Your task to perform on an android device: View the shopping cart on target. Search for "asus zenbook" on target, select the first entry, and add it to the cart. Image 0: 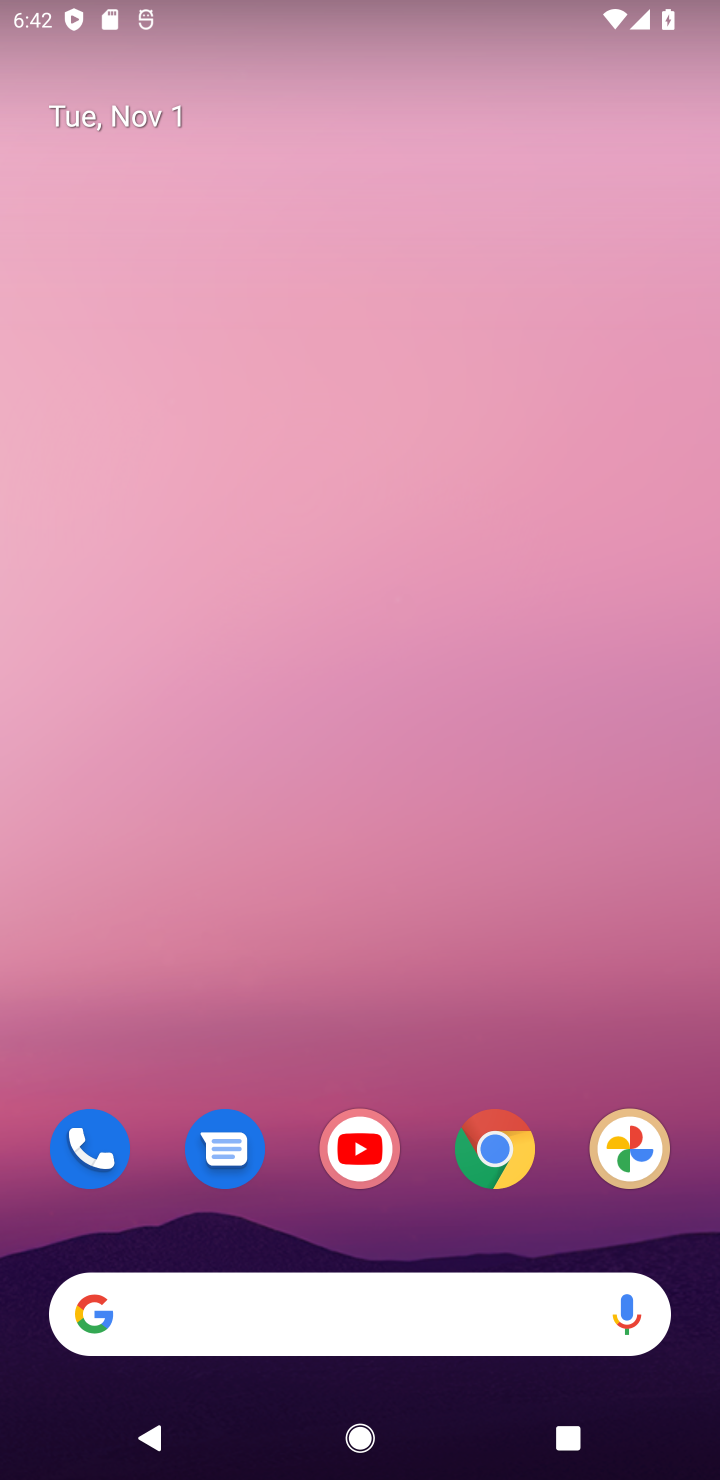
Step 0: drag from (406, 1222) to (588, 315)
Your task to perform on an android device: View the shopping cart on target. Search for "asus zenbook" on target, select the first entry, and add it to the cart. Image 1: 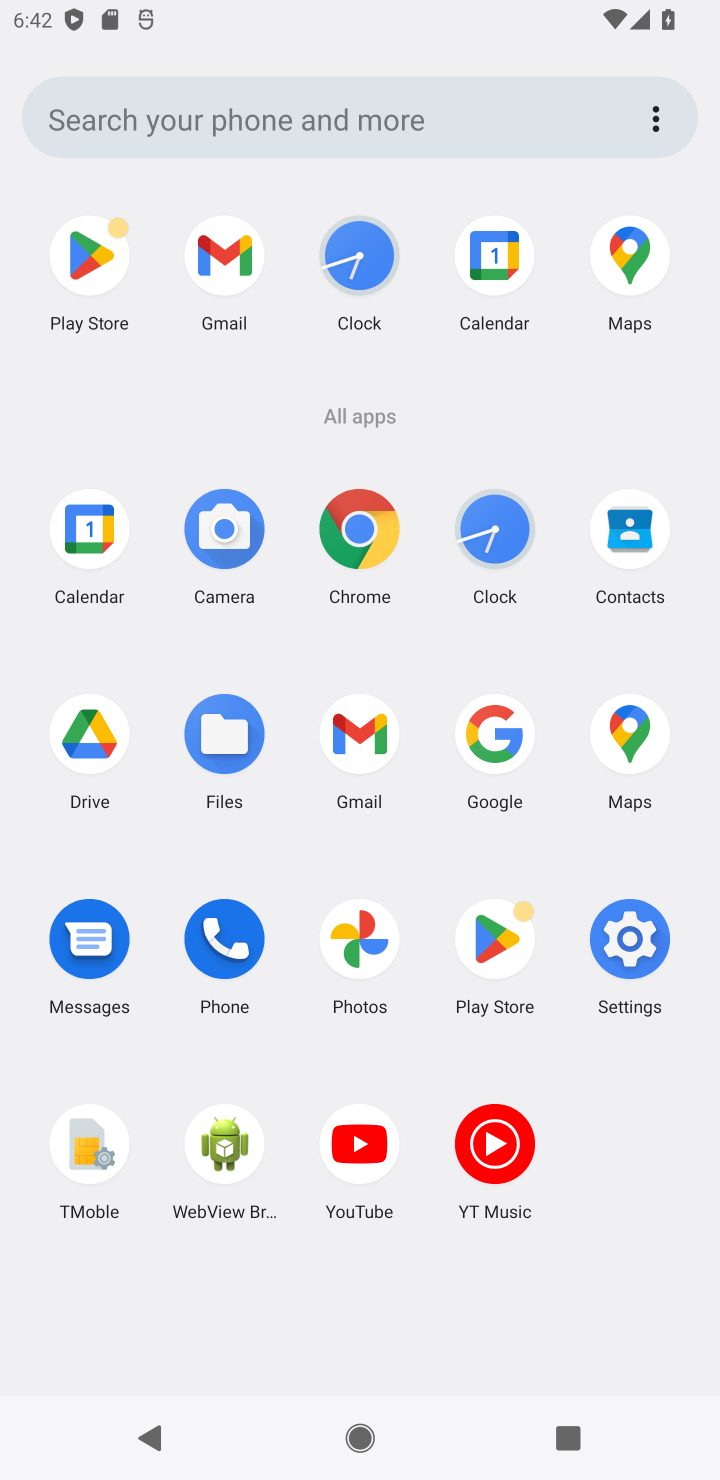
Step 1: click (360, 536)
Your task to perform on an android device: View the shopping cart on target. Search for "asus zenbook" on target, select the first entry, and add it to the cart. Image 2: 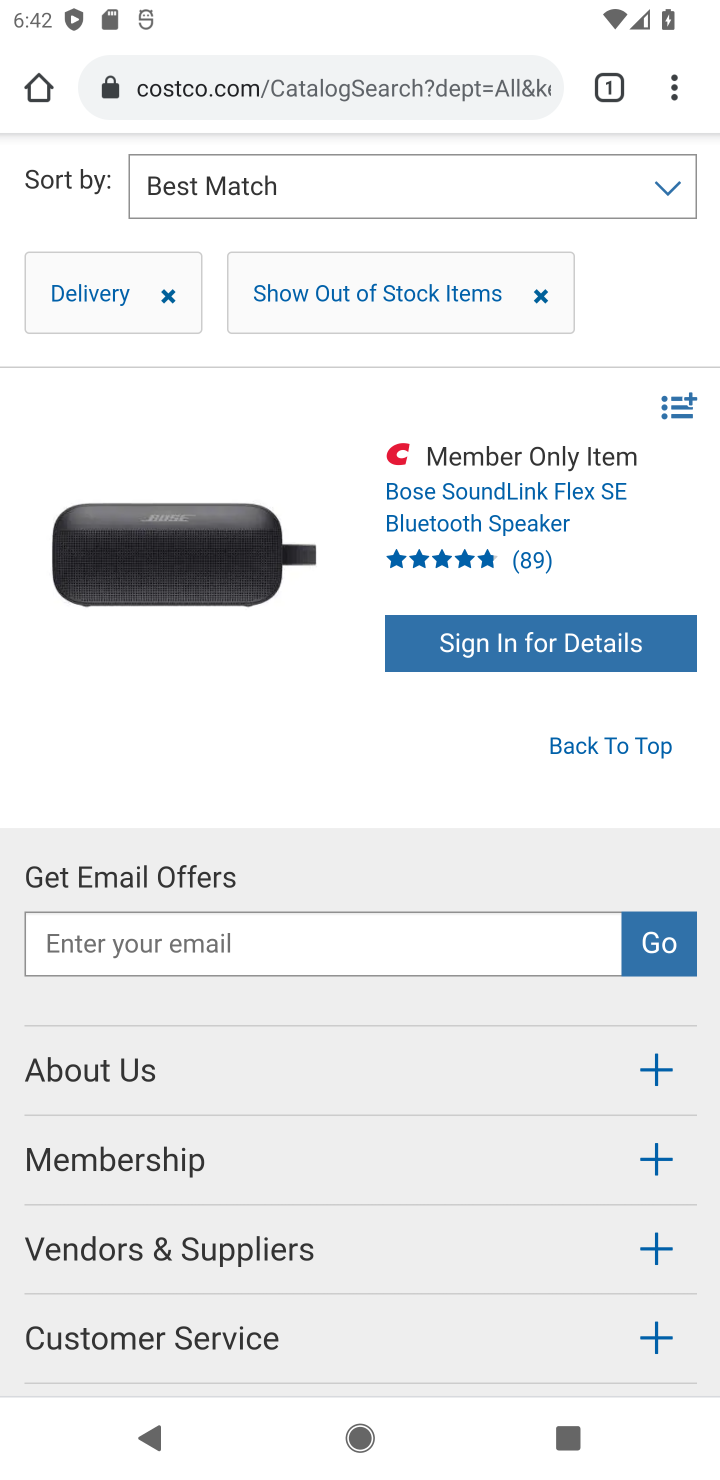
Step 2: click (350, 528)
Your task to perform on an android device: View the shopping cart on target. Search for "asus zenbook" on target, select the first entry, and add it to the cart. Image 3: 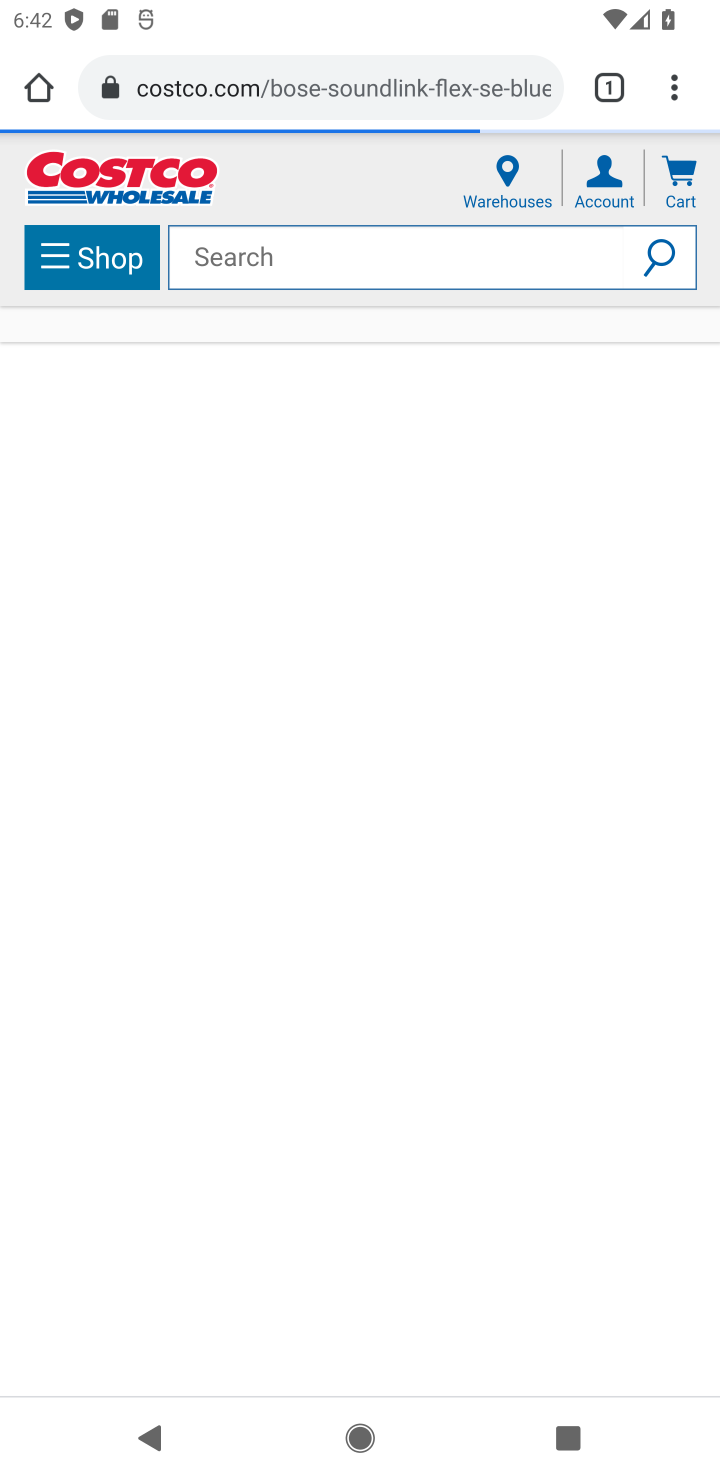
Step 3: click (396, 98)
Your task to perform on an android device: View the shopping cart on target. Search for "asus zenbook" on target, select the first entry, and add it to the cart. Image 4: 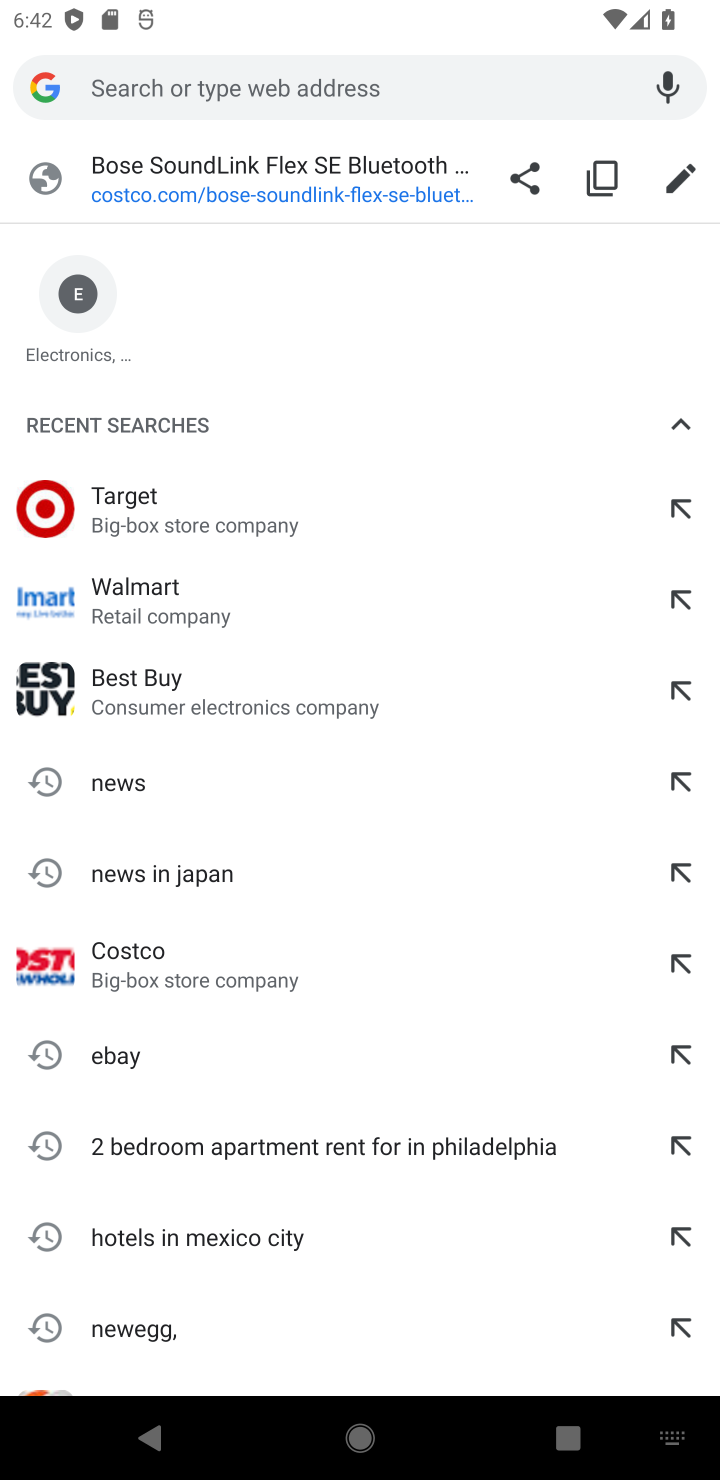
Step 4: type "target.com"
Your task to perform on an android device: View the shopping cart on target. Search for "asus zenbook" on target, select the first entry, and add it to the cart. Image 5: 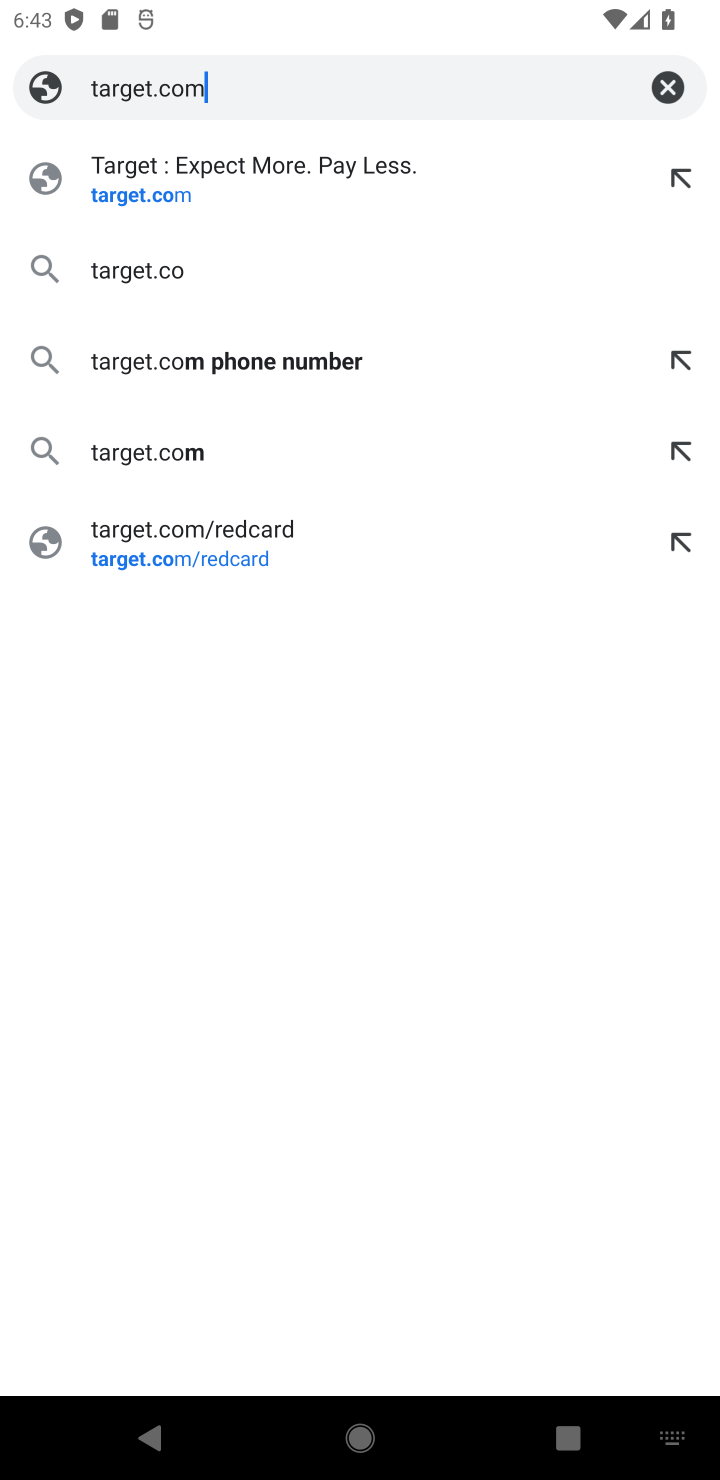
Step 5: press enter
Your task to perform on an android device: View the shopping cart on target. Search for "asus zenbook" on target, select the first entry, and add it to the cart. Image 6: 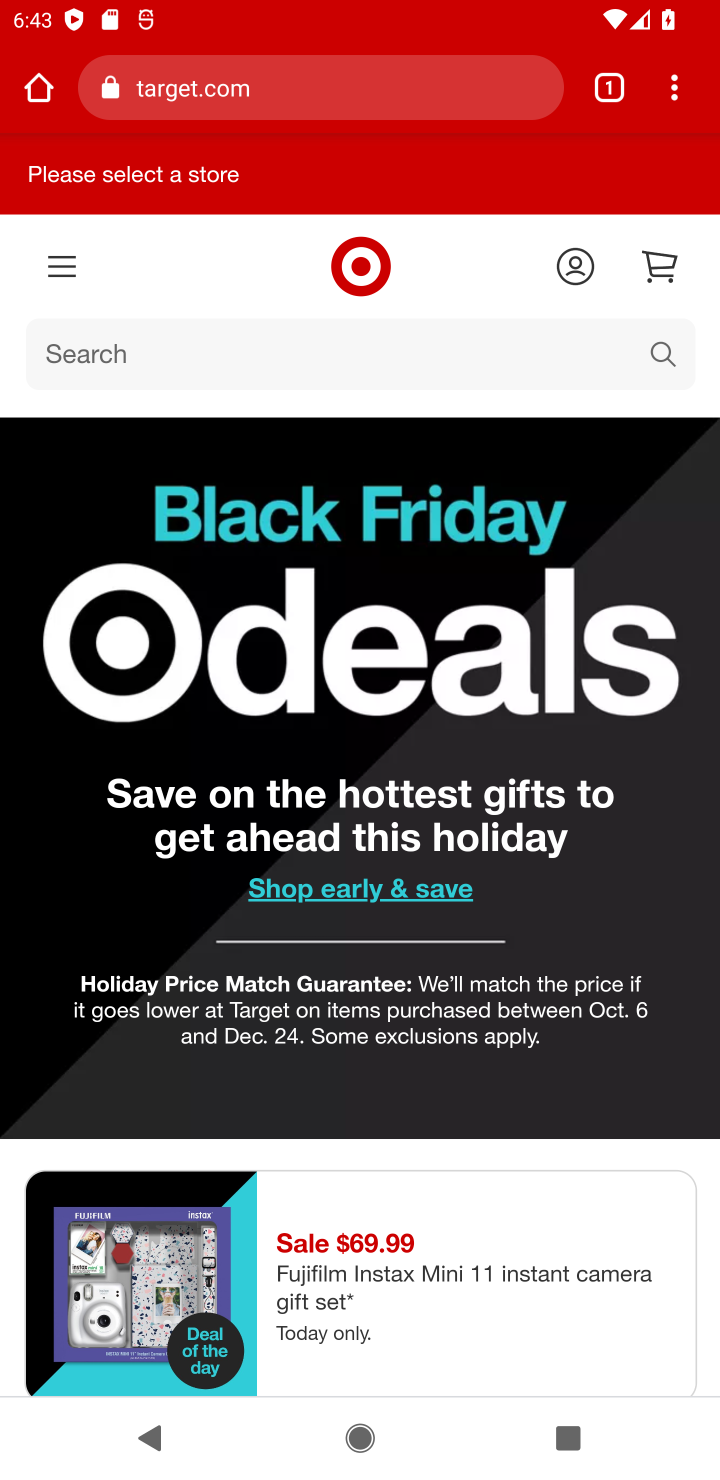
Step 6: click (656, 269)
Your task to perform on an android device: View the shopping cart on target. Search for "asus zenbook" on target, select the first entry, and add it to the cart. Image 7: 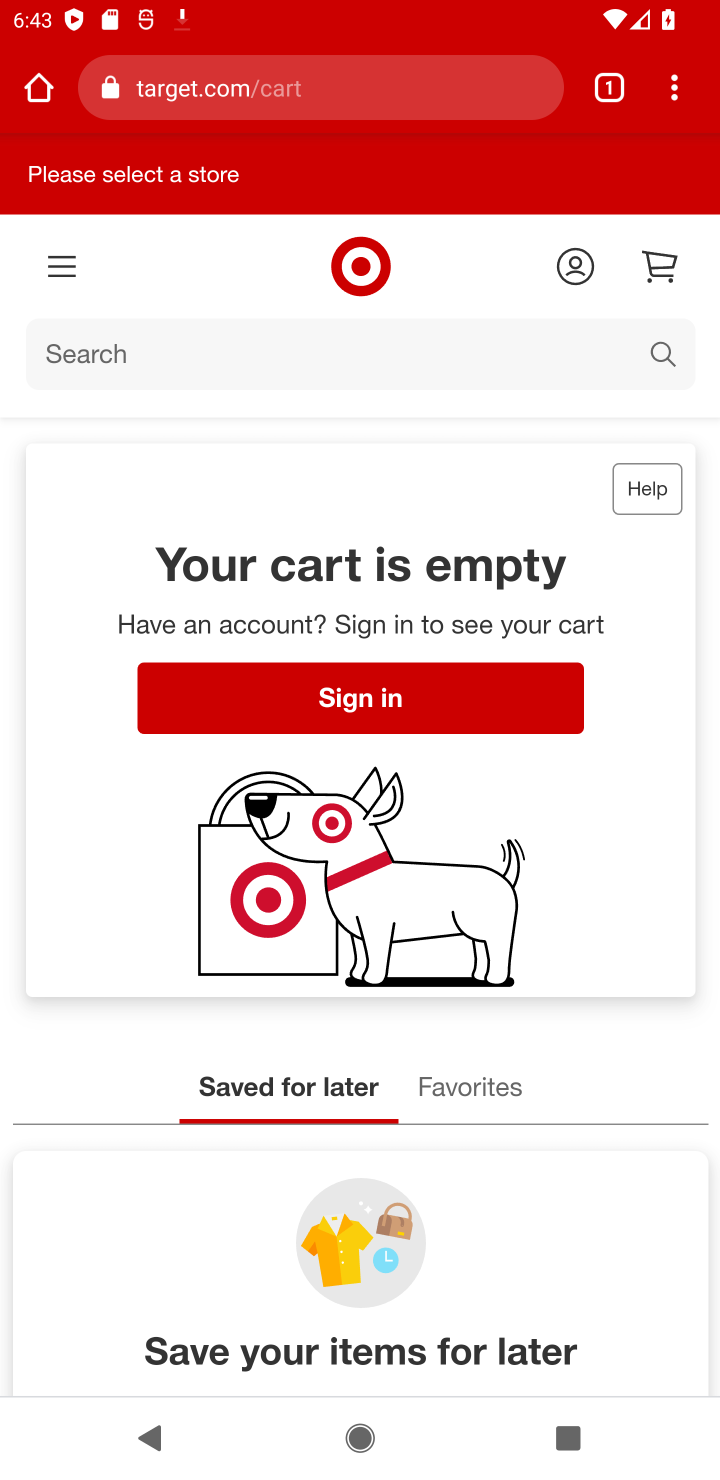
Step 7: click (510, 361)
Your task to perform on an android device: View the shopping cart on target. Search for "asus zenbook" on target, select the first entry, and add it to the cart. Image 8: 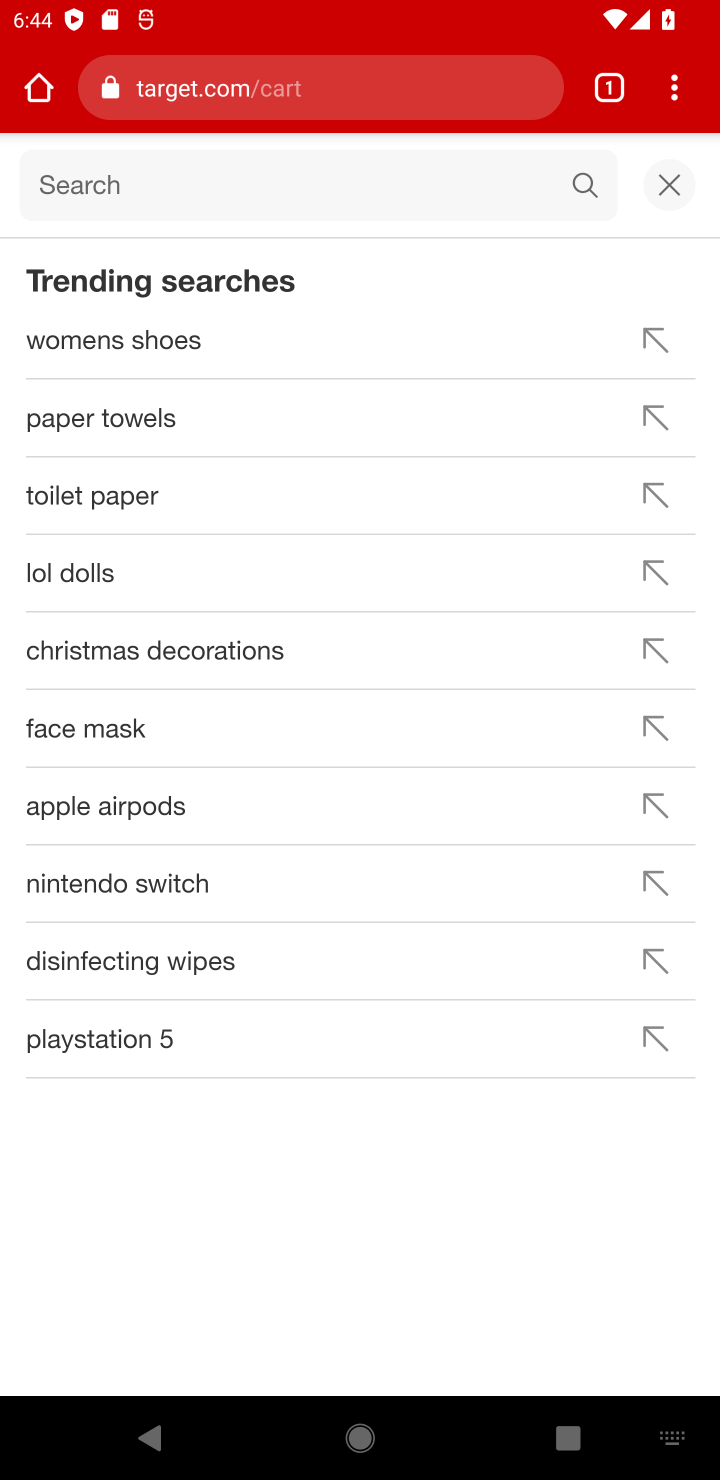
Step 8: type "asus zenbook"
Your task to perform on an android device: View the shopping cart on target. Search for "asus zenbook" on target, select the first entry, and add it to the cart. Image 9: 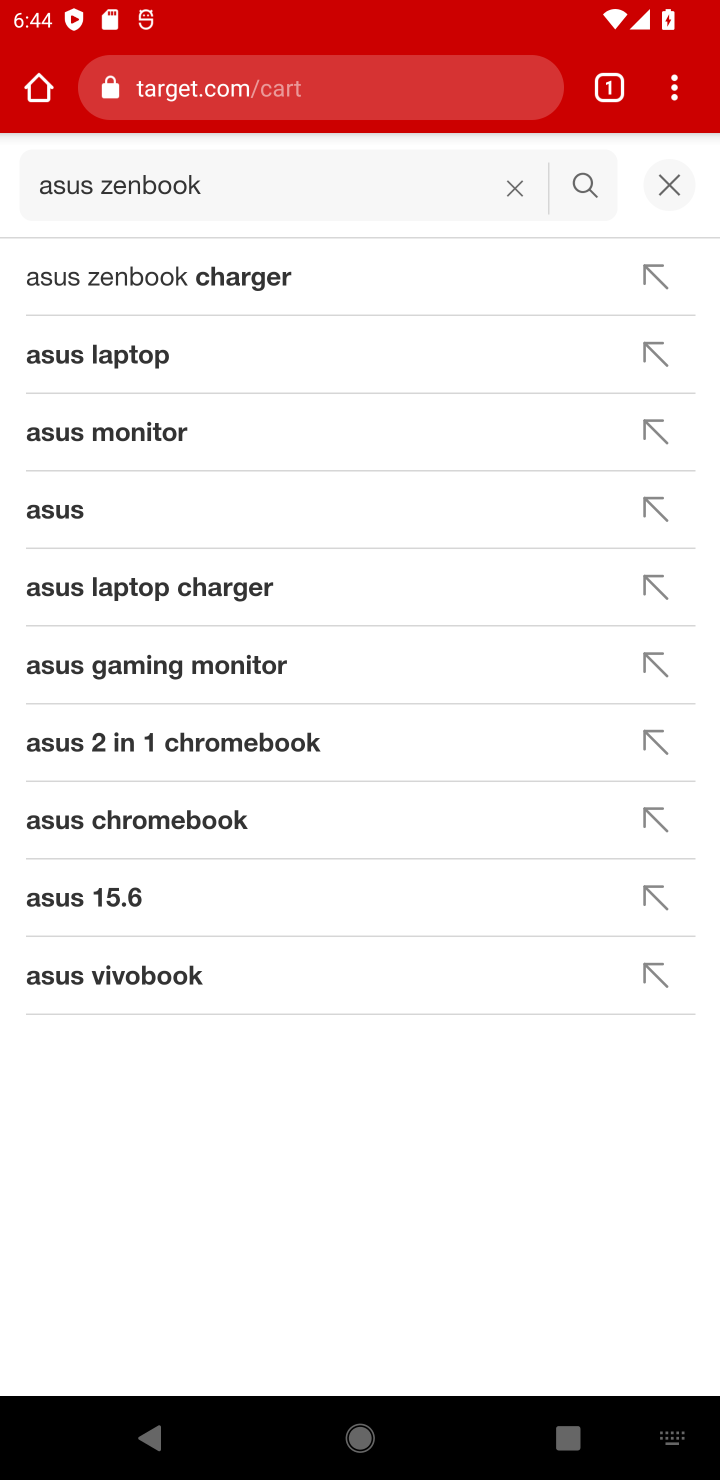
Step 9: press enter
Your task to perform on an android device: View the shopping cart on target. Search for "asus zenbook" on target, select the first entry, and add it to the cart. Image 10: 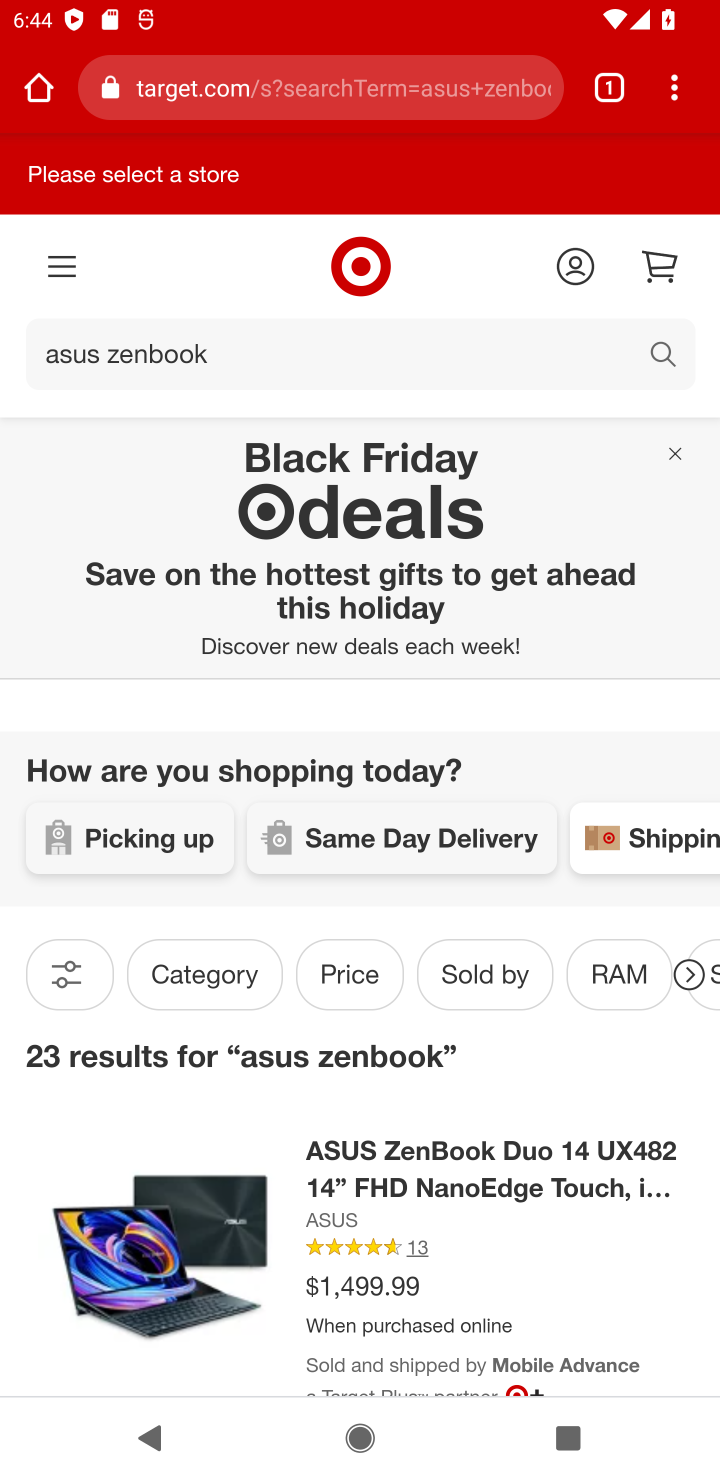
Step 10: drag from (470, 1186) to (477, 511)
Your task to perform on an android device: View the shopping cart on target. Search for "asus zenbook" on target, select the first entry, and add it to the cart. Image 11: 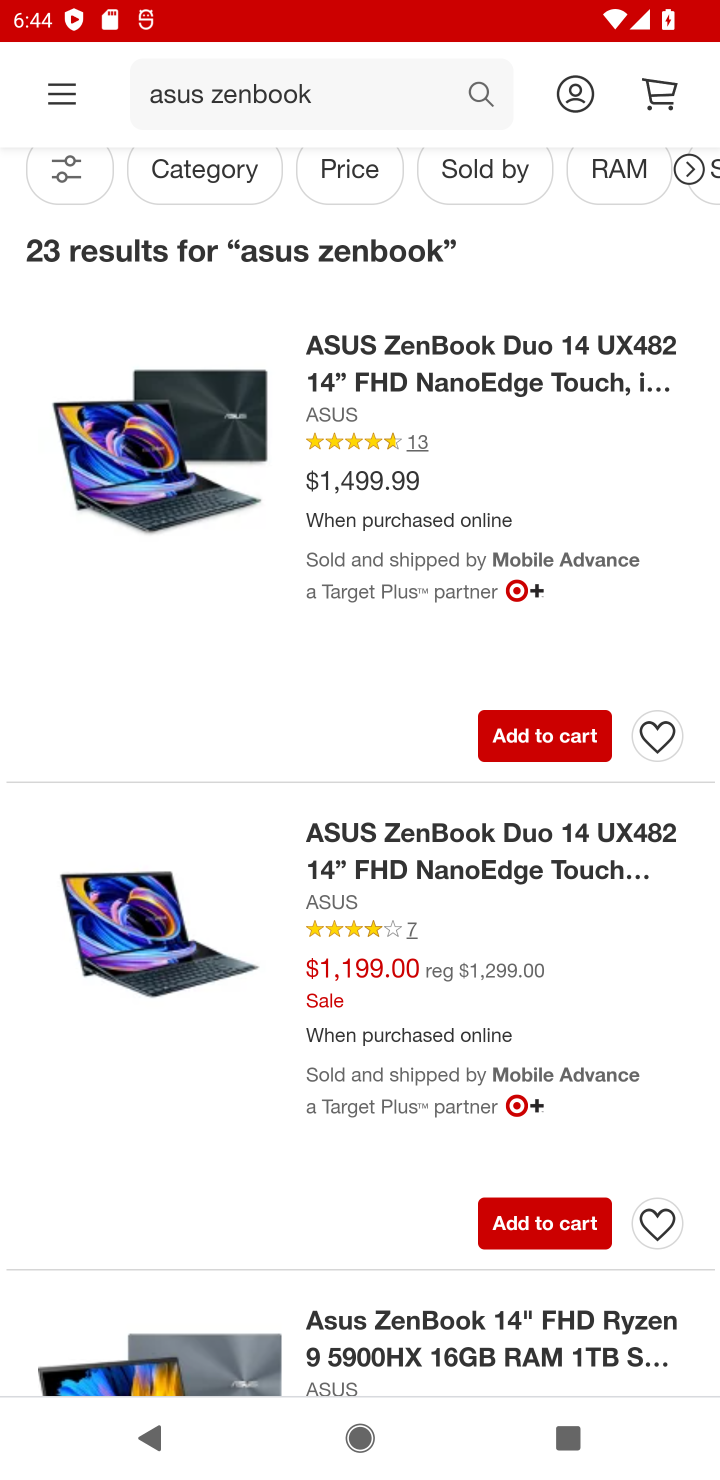
Step 11: click (193, 421)
Your task to perform on an android device: View the shopping cart on target. Search for "asus zenbook" on target, select the first entry, and add it to the cart. Image 12: 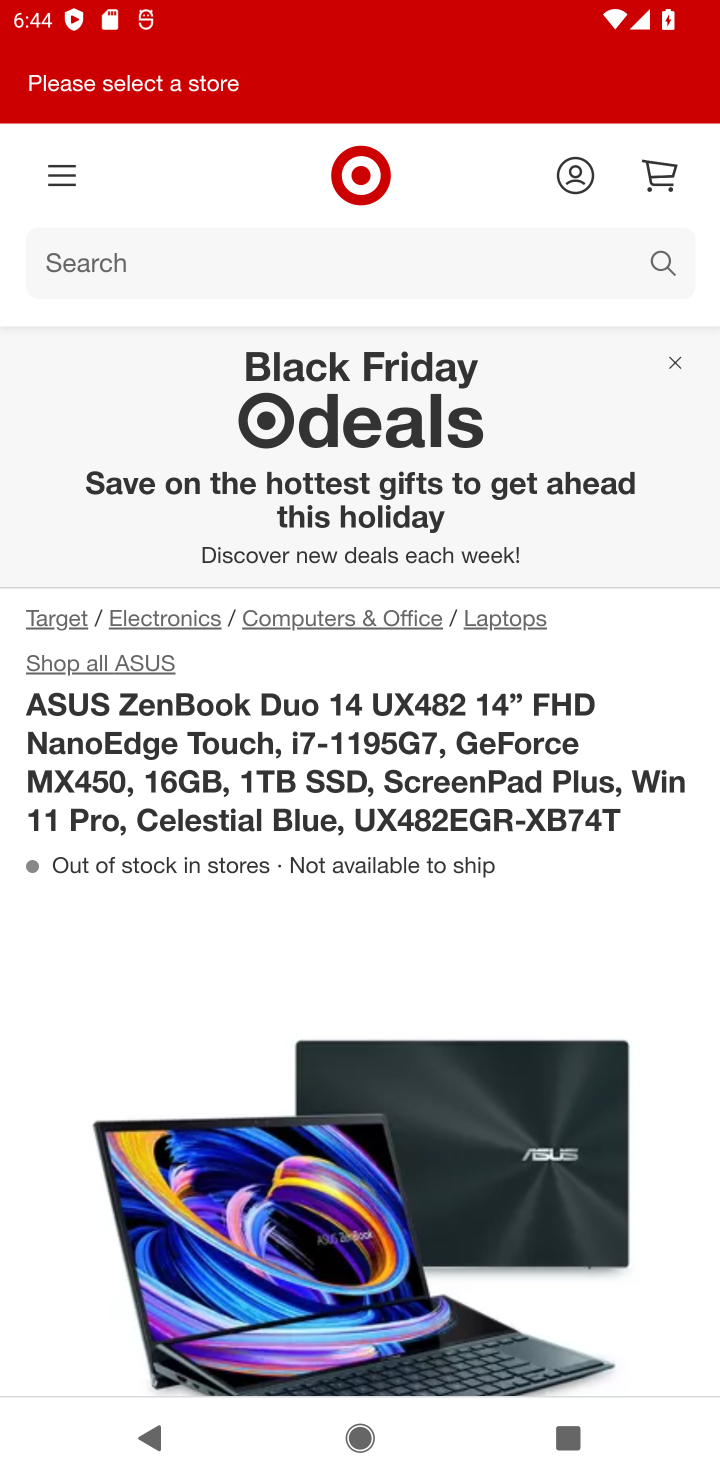
Step 12: drag from (352, 957) to (498, 198)
Your task to perform on an android device: View the shopping cart on target. Search for "asus zenbook" on target, select the first entry, and add it to the cart. Image 13: 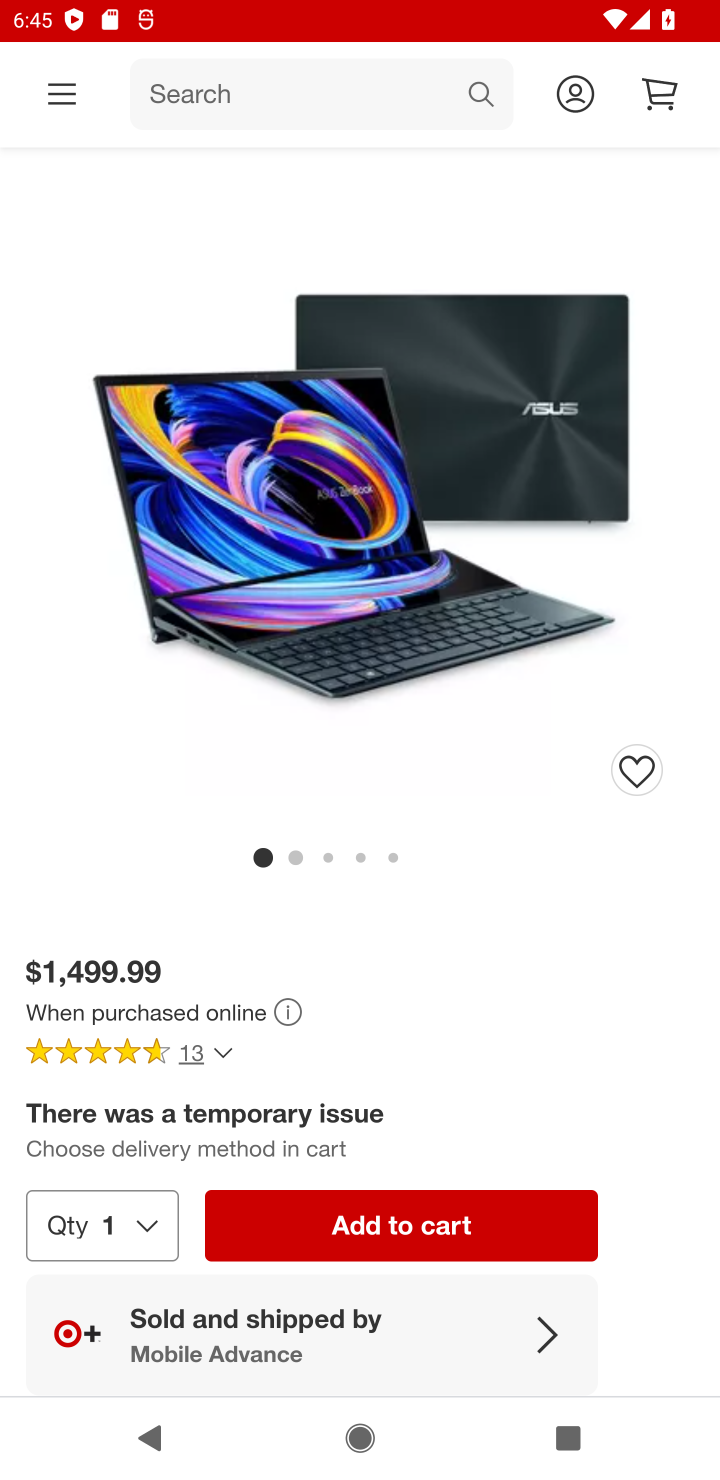
Step 13: click (370, 1228)
Your task to perform on an android device: View the shopping cart on target. Search for "asus zenbook" on target, select the first entry, and add it to the cart. Image 14: 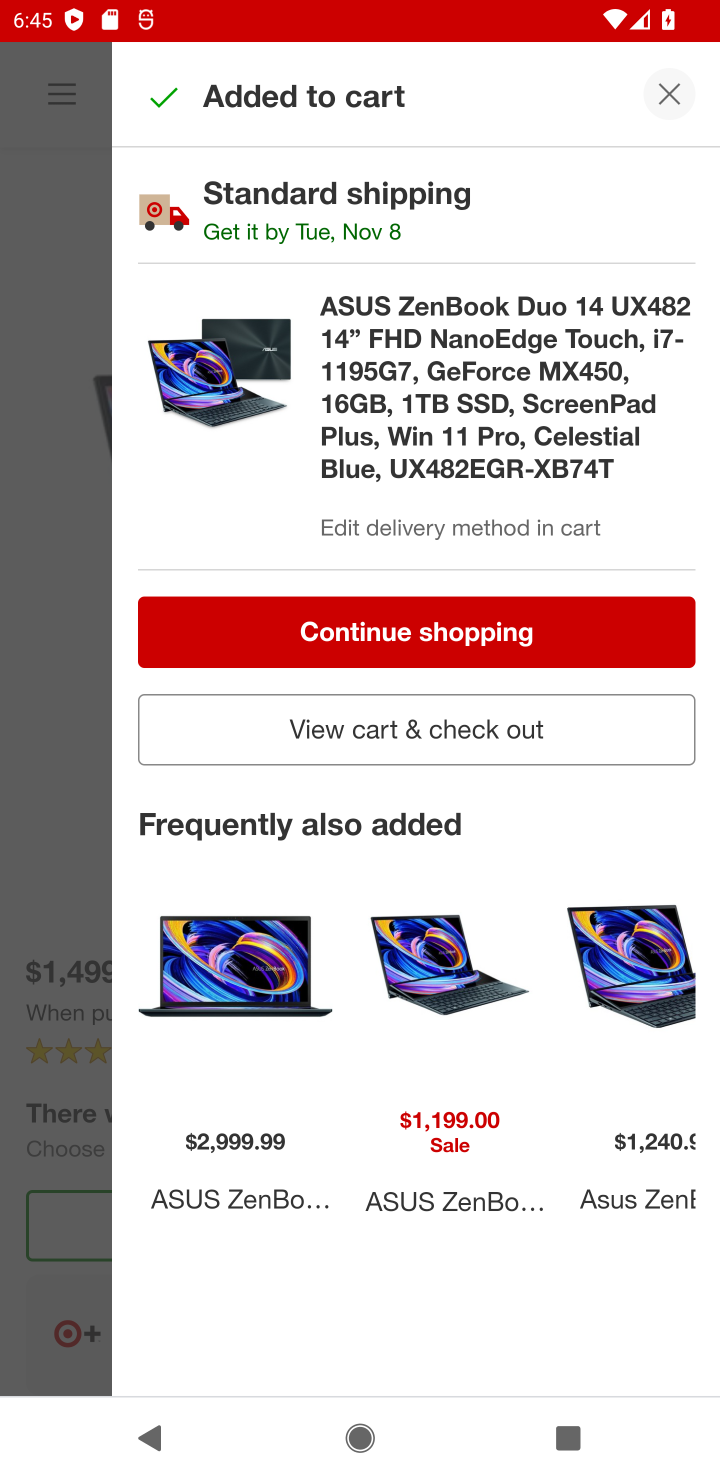
Step 14: task complete